Your task to perform on an android device: Show me recent news Image 0: 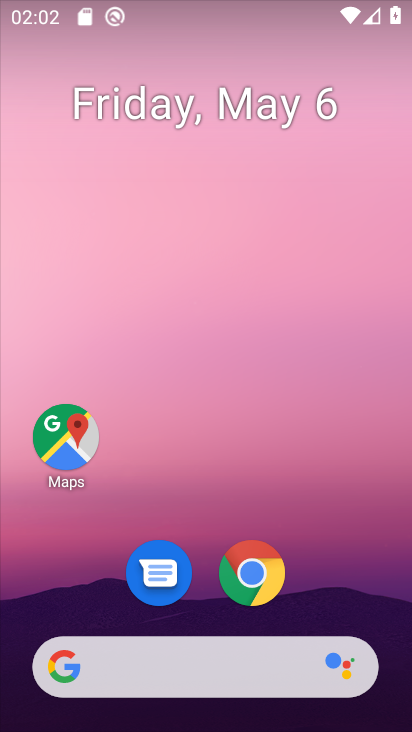
Step 0: drag from (335, 367) to (335, 244)
Your task to perform on an android device: Show me recent news Image 1: 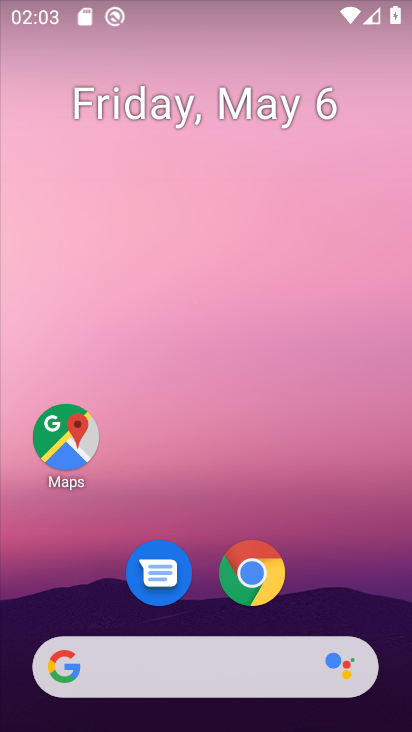
Step 1: drag from (335, 567) to (349, 252)
Your task to perform on an android device: Show me recent news Image 2: 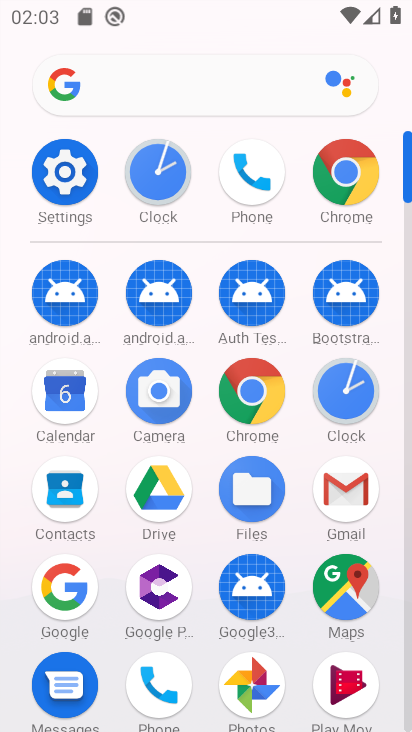
Step 2: click (243, 371)
Your task to perform on an android device: Show me recent news Image 3: 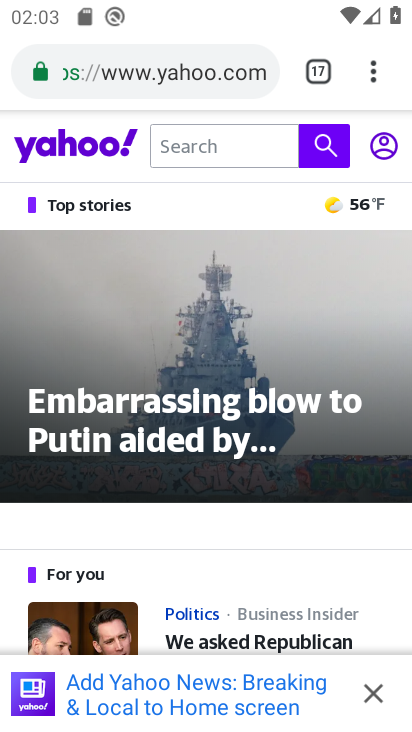
Step 3: click (355, 56)
Your task to perform on an android device: Show me recent news Image 4: 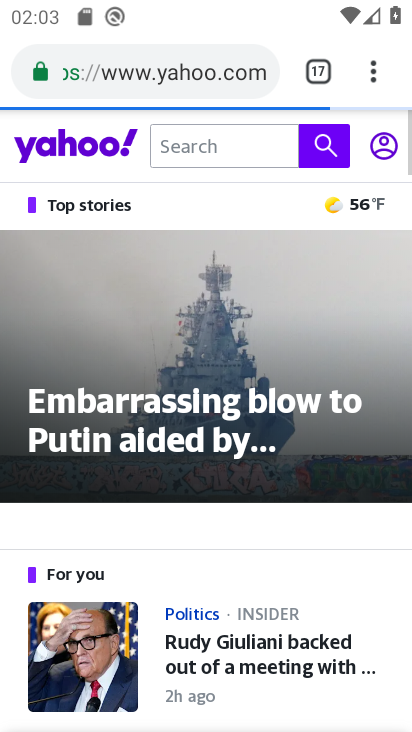
Step 4: click (353, 69)
Your task to perform on an android device: Show me recent news Image 5: 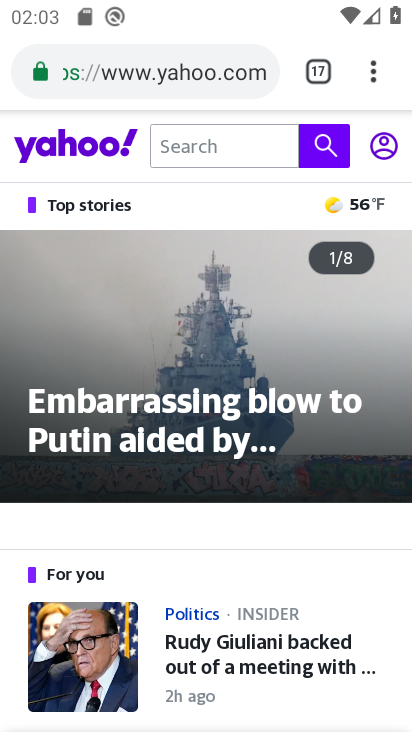
Step 5: click (374, 65)
Your task to perform on an android device: Show me recent news Image 6: 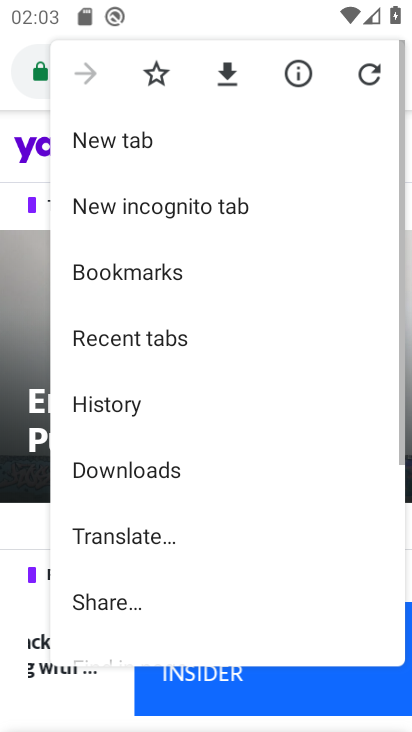
Step 6: click (141, 141)
Your task to perform on an android device: Show me recent news Image 7: 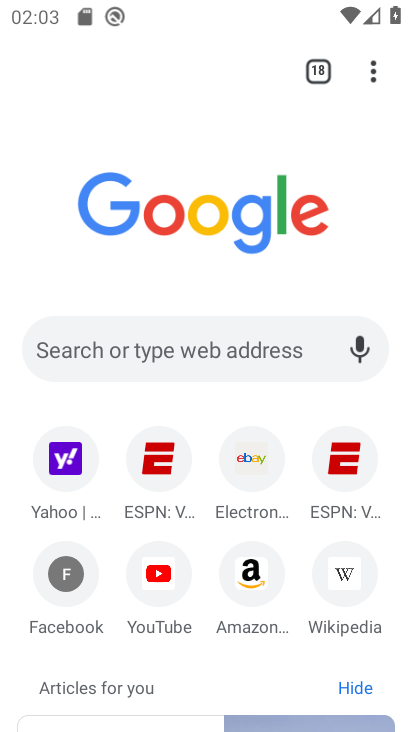
Step 7: click (234, 369)
Your task to perform on an android device: Show me recent news Image 8: 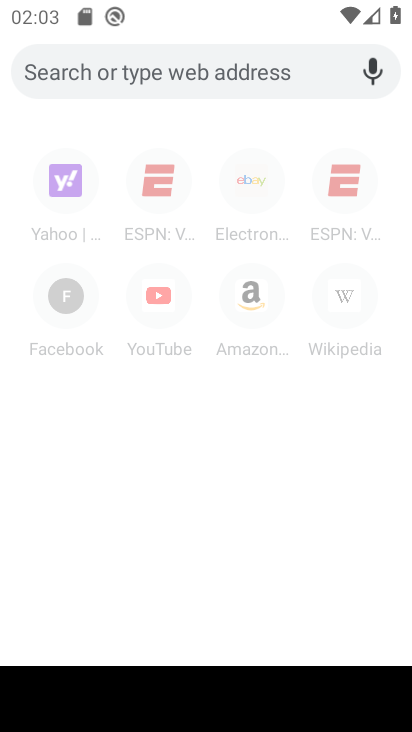
Step 8: type "Show me recent news"
Your task to perform on an android device: Show me recent news Image 9: 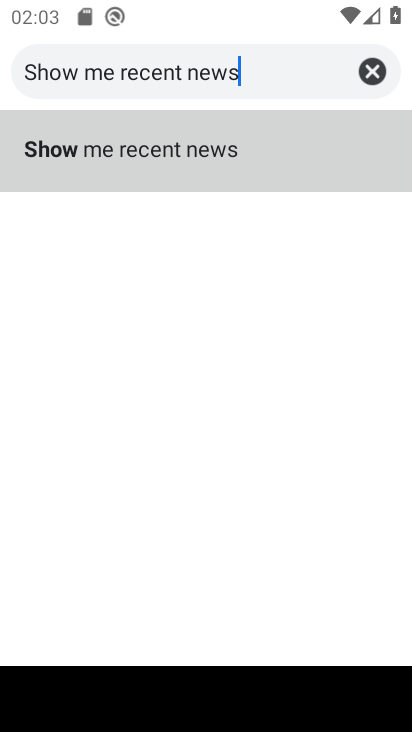
Step 9: click (234, 141)
Your task to perform on an android device: Show me recent news Image 10: 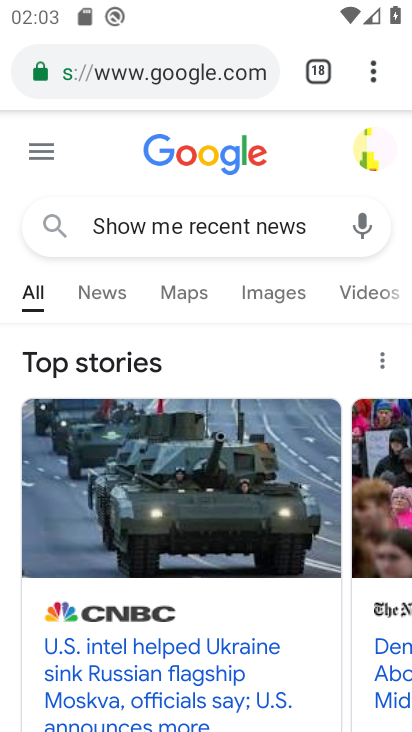
Step 10: task complete